Your task to perform on an android device: check out phone information Image 0: 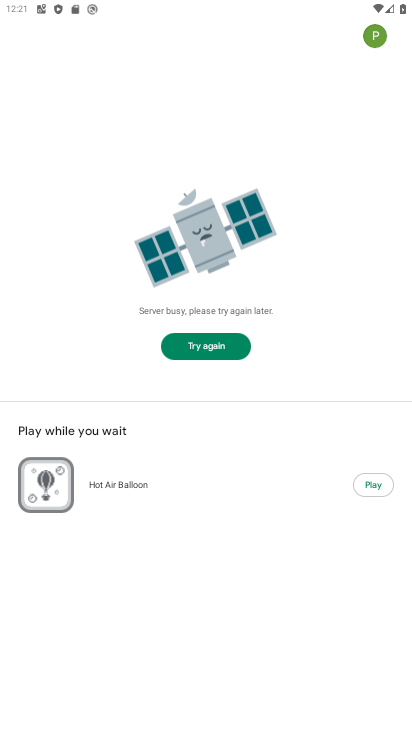
Step 0: press home button
Your task to perform on an android device: check out phone information Image 1: 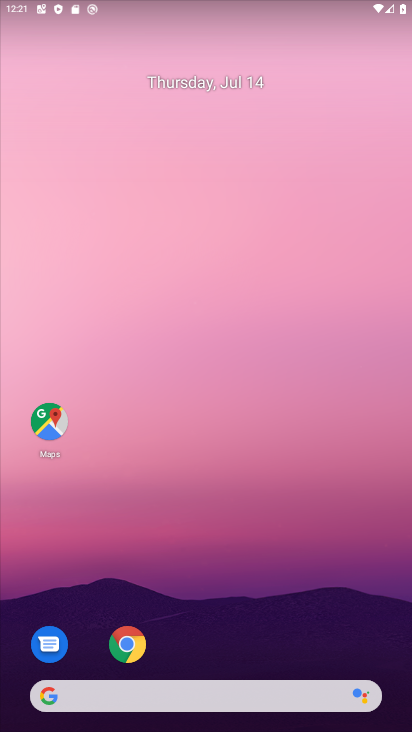
Step 1: drag from (279, 620) to (411, 40)
Your task to perform on an android device: check out phone information Image 2: 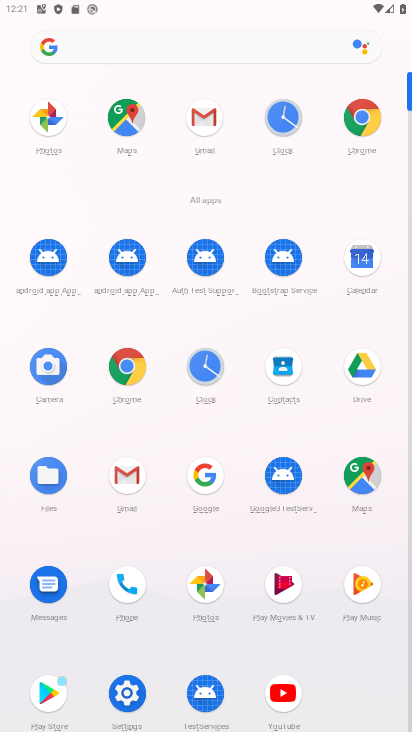
Step 2: click (144, 690)
Your task to perform on an android device: check out phone information Image 3: 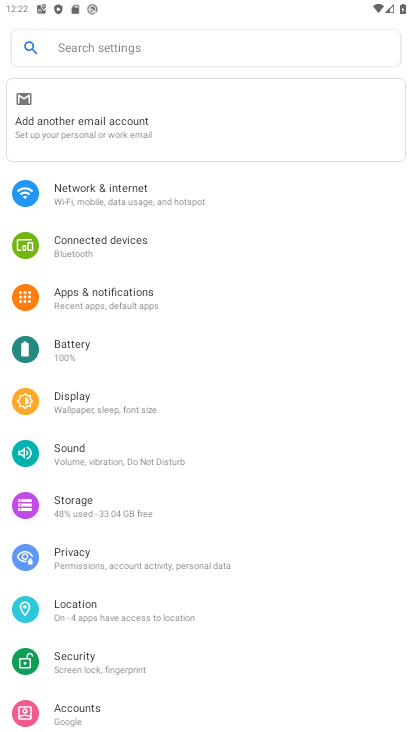
Step 3: task complete